Your task to perform on an android device: open device folders in google photos Image 0: 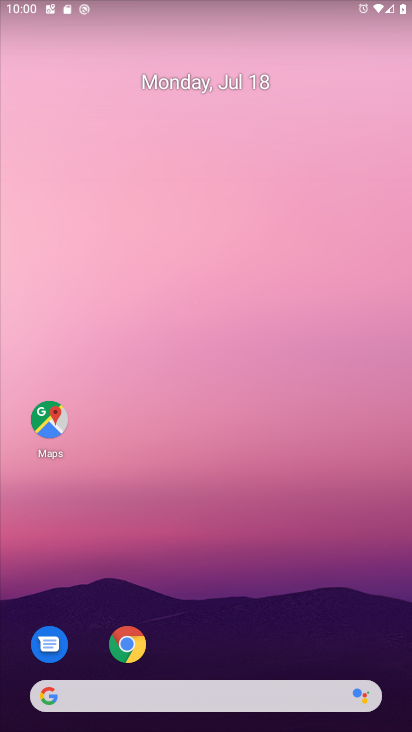
Step 0: drag from (269, 650) to (235, 177)
Your task to perform on an android device: open device folders in google photos Image 1: 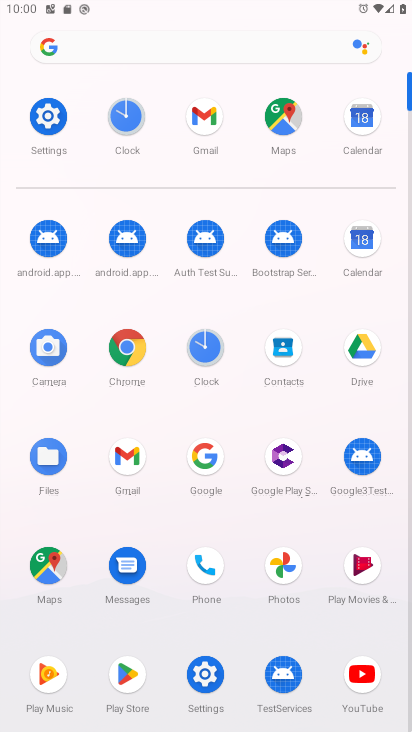
Step 1: click (273, 550)
Your task to perform on an android device: open device folders in google photos Image 2: 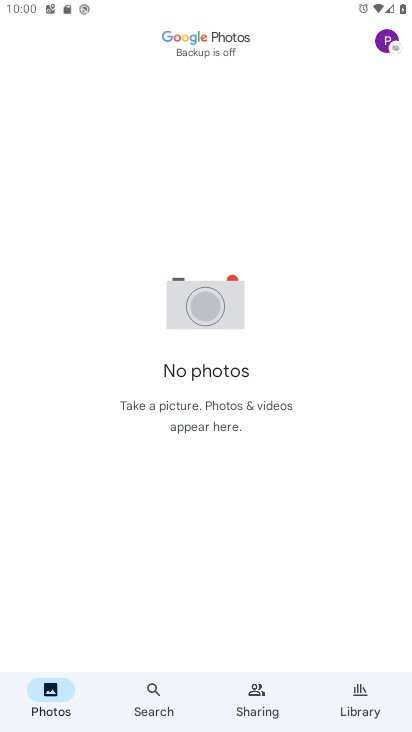
Step 2: task complete